Your task to perform on an android device: turn on javascript in the chrome app Image 0: 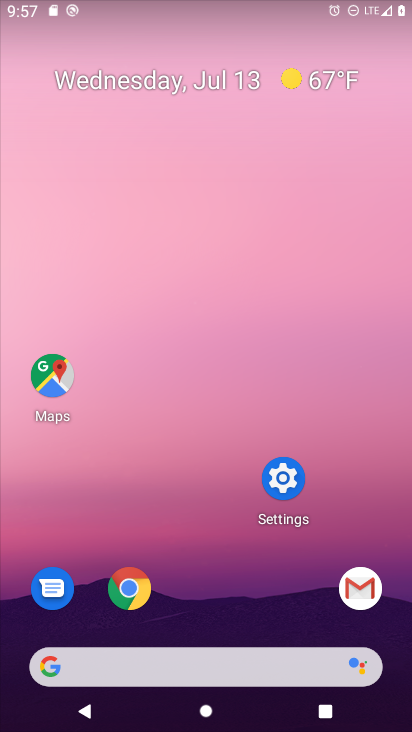
Step 0: drag from (256, 669) to (227, 147)
Your task to perform on an android device: turn on javascript in the chrome app Image 1: 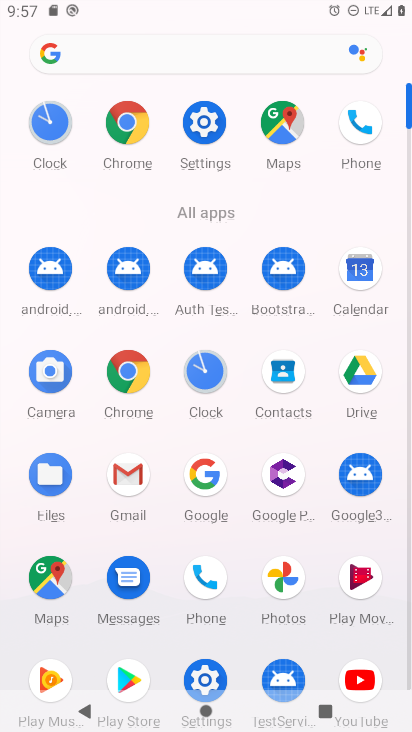
Step 1: click (142, 132)
Your task to perform on an android device: turn on javascript in the chrome app Image 2: 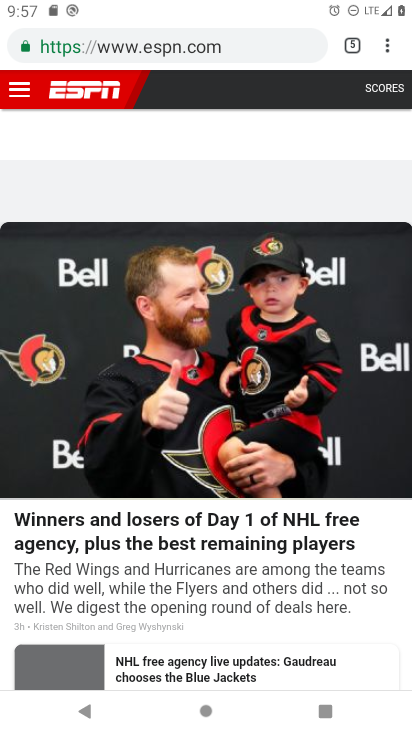
Step 2: click (382, 52)
Your task to perform on an android device: turn on javascript in the chrome app Image 3: 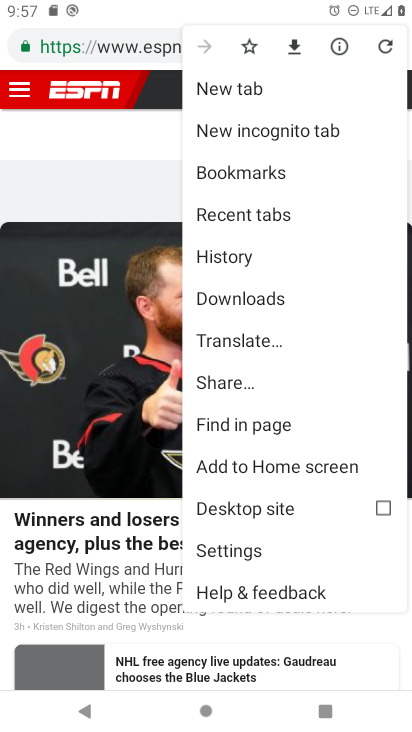
Step 3: click (223, 550)
Your task to perform on an android device: turn on javascript in the chrome app Image 4: 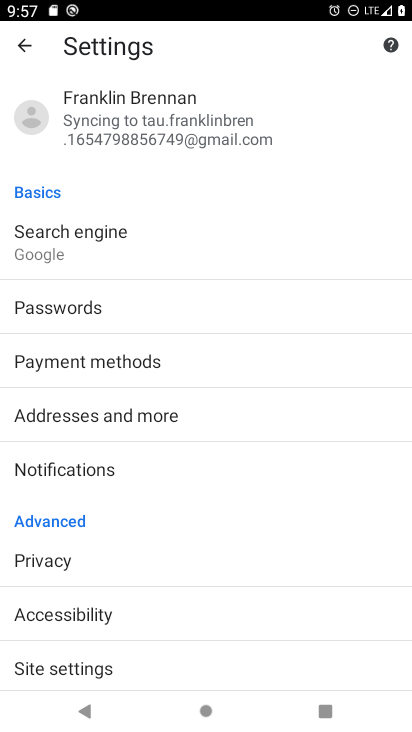
Step 4: click (53, 665)
Your task to perform on an android device: turn on javascript in the chrome app Image 5: 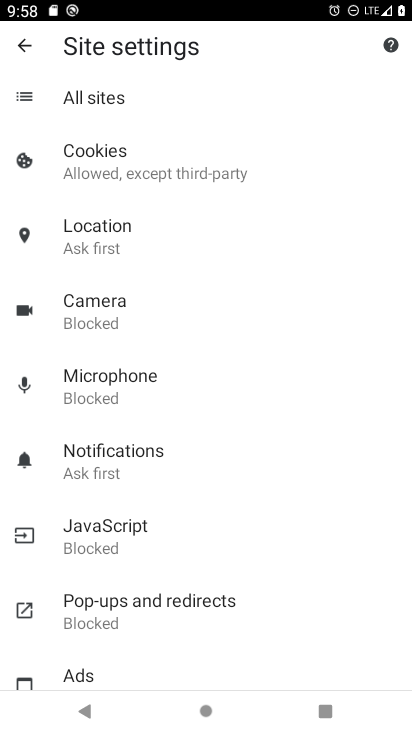
Step 5: click (120, 531)
Your task to perform on an android device: turn on javascript in the chrome app Image 6: 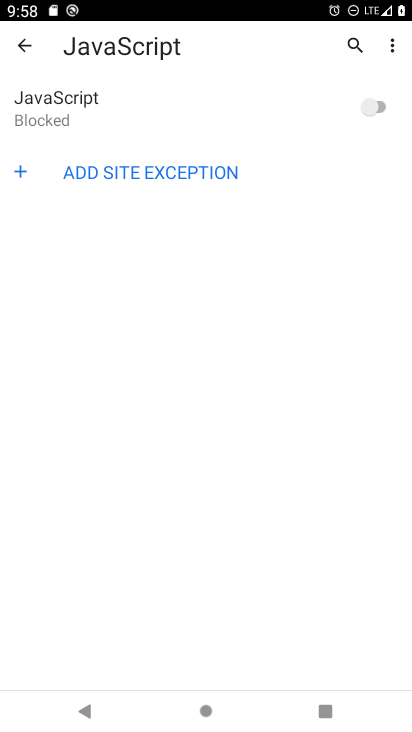
Step 6: click (382, 104)
Your task to perform on an android device: turn on javascript in the chrome app Image 7: 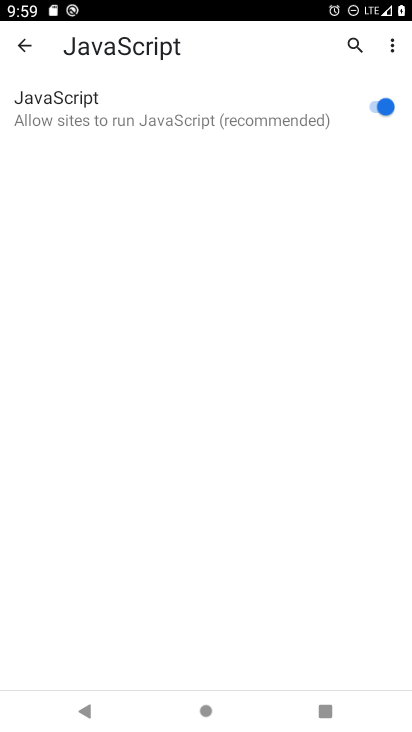
Step 7: task complete